Your task to perform on an android device: open a bookmark in the chrome app Image 0: 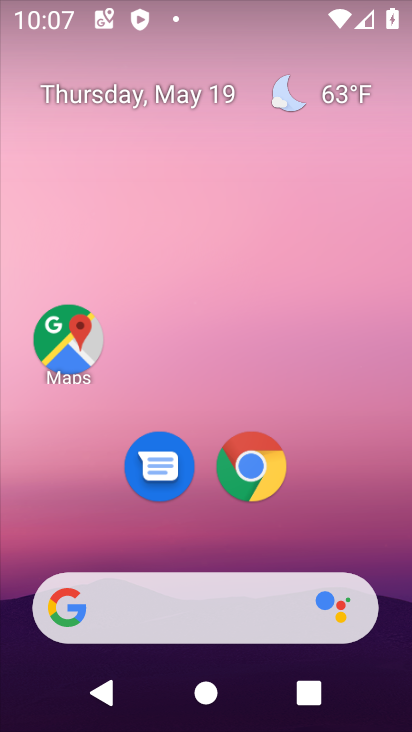
Step 0: drag from (399, 614) to (265, 14)
Your task to perform on an android device: open a bookmark in the chrome app Image 1: 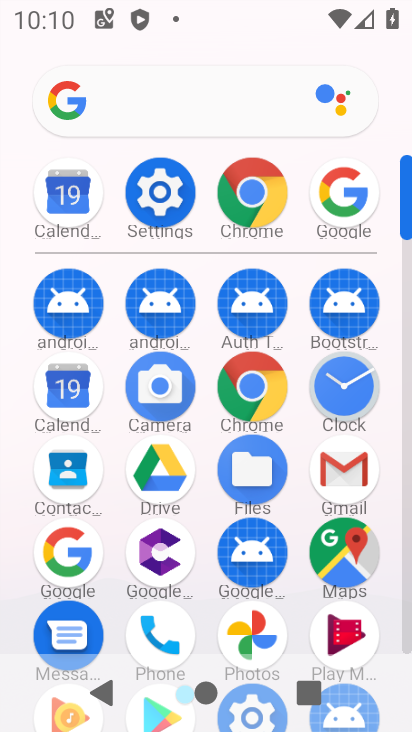
Step 1: click (268, 362)
Your task to perform on an android device: open a bookmark in the chrome app Image 2: 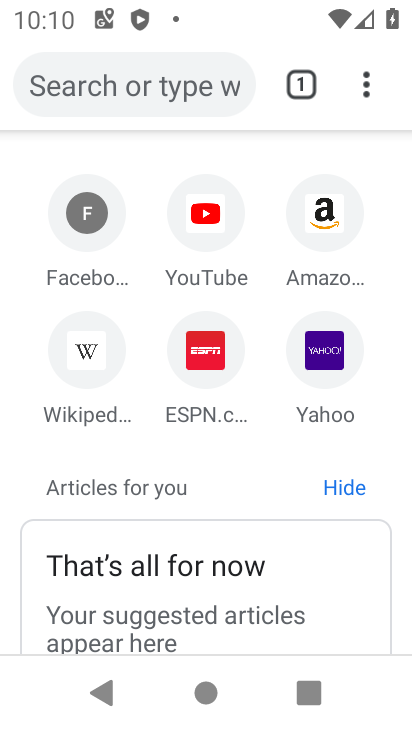
Step 2: click (372, 71)
Your task to perform on an android device: open a bookmark in the chrome app Image 3: 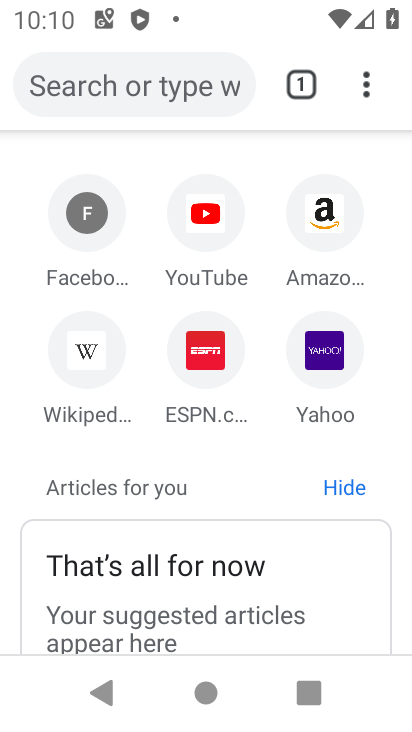
Step 3: click (364, 85)
Your task to perform on an android device: open a bookmark in the chrome app Image 4: 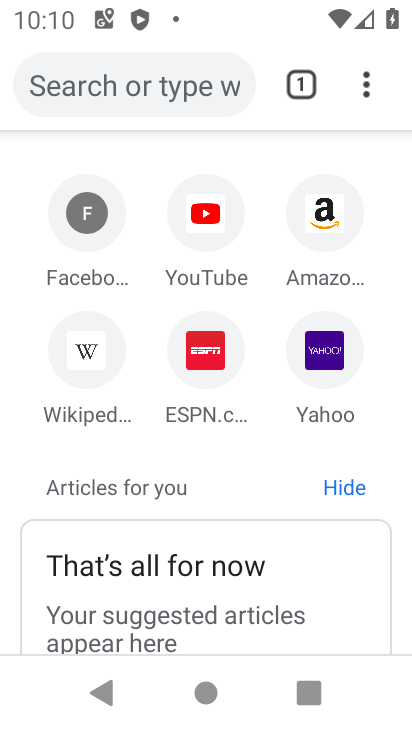
Step 4: click (364, 85)
Your task to perform on an android device: open a bookmark in the chrome app Image 5: 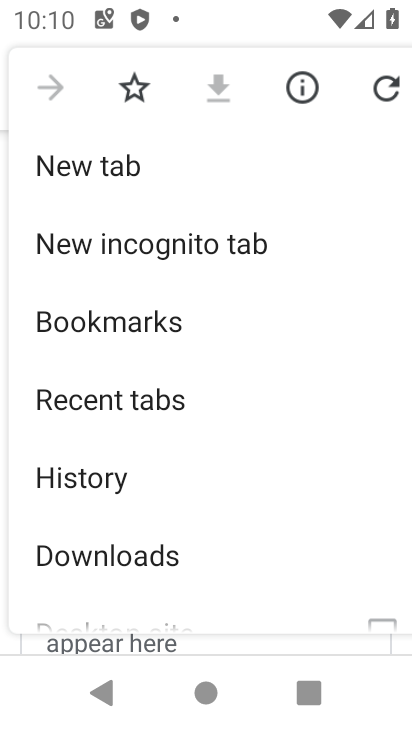
Step 5: click (183, 313)
Your task to perform on an android device: open a bookmark in the chrome app Image 6: 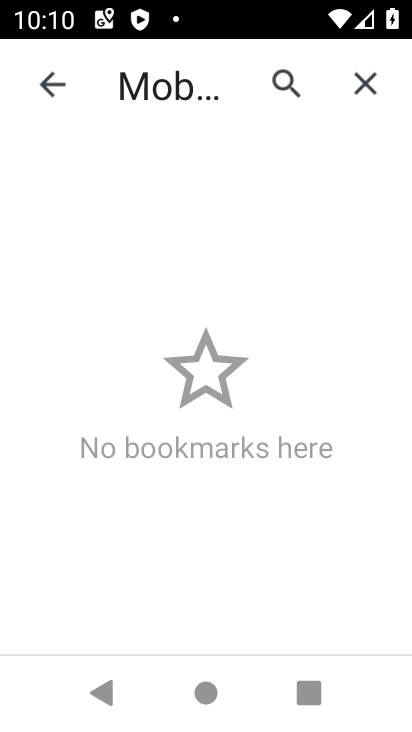
Step 6: task complete